Your task to perform on an android device: set an alarm Image 0: 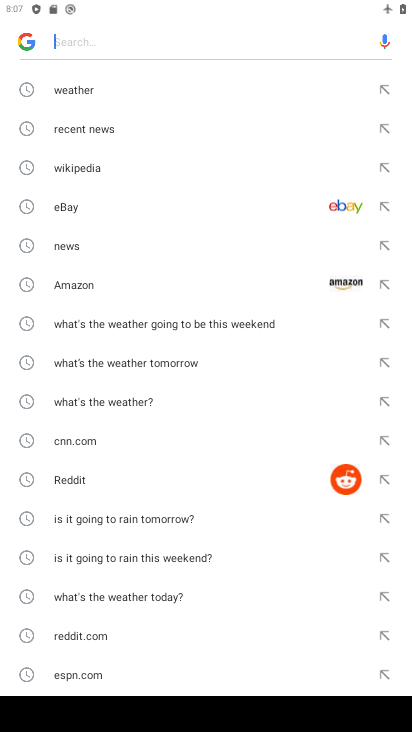
Step 0: press back button
Your task to perform on an android device: set an alarm Image 1: 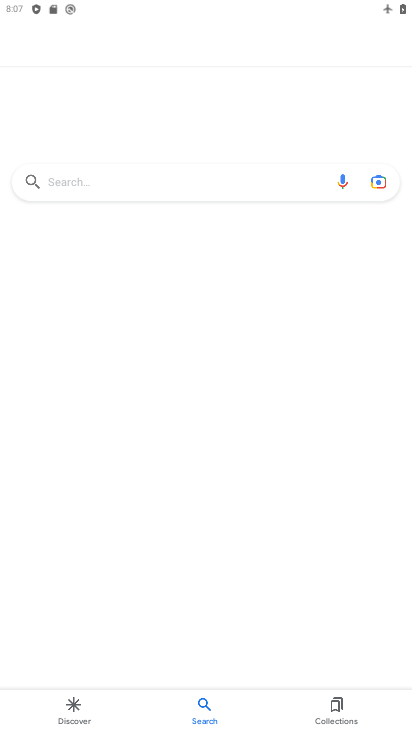
Step 1: press back button
Your task to perform on an android device: set an alarm Image 2: 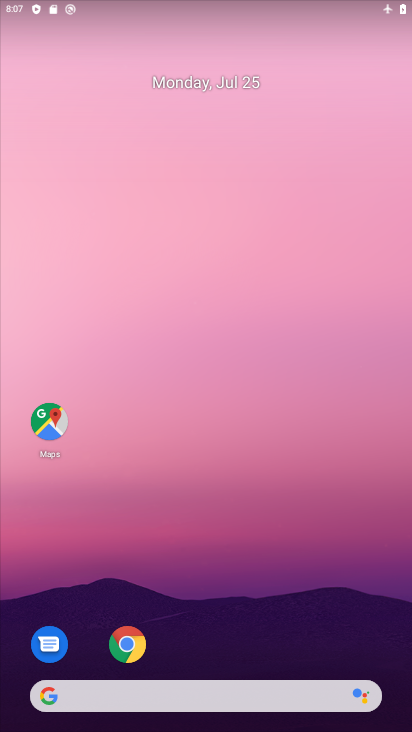
Step 2: drag from (192, 598) to (185, 143)
Your task to perform on an android device: set an alarm Image 3: 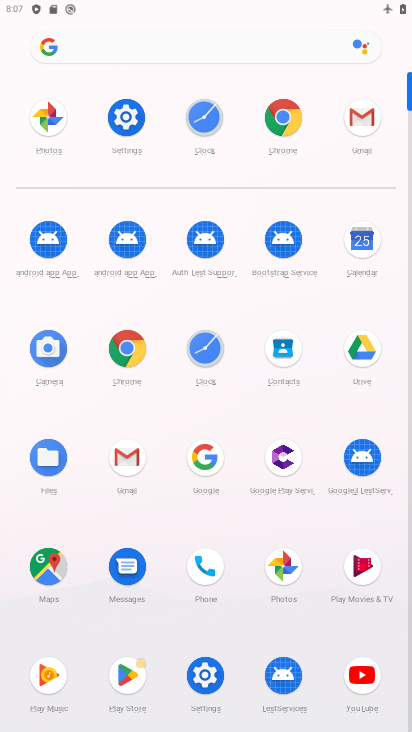
Step 3: click (209, 355)
Your task to perform on an android device: set an alarm Image 4: 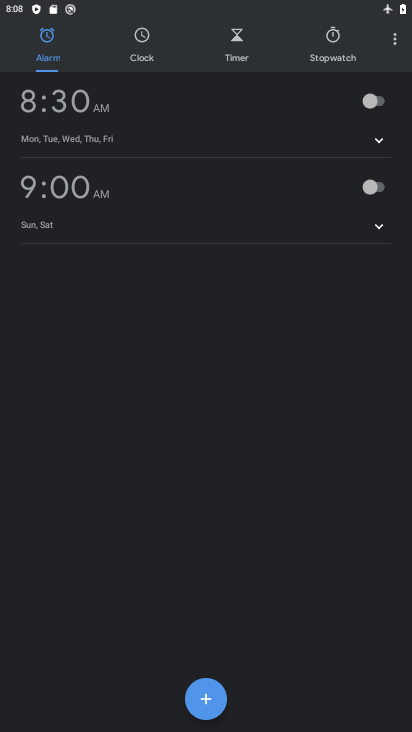
Step 4: click (376, 99)
Your task to perform on an android device: set an alarm Image 5: 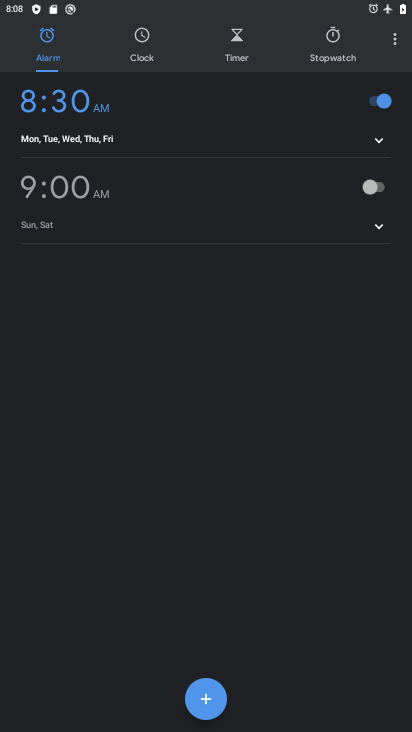
Step 5: task complete